Your task to perform on an android device: check out phone information Image 0: 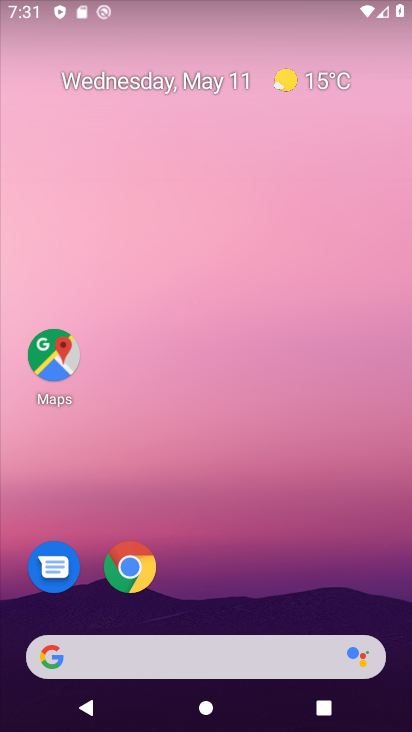
Step 0: press home button
Your task to perform on an android device: check out phone information Image 1: 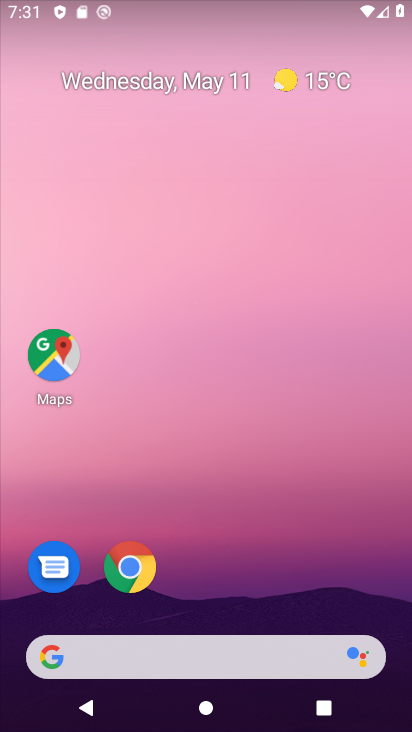
Step 1: drag from (235, 593) to (399, 124)
Your task to perform on an android device: check out phone information Image 2: 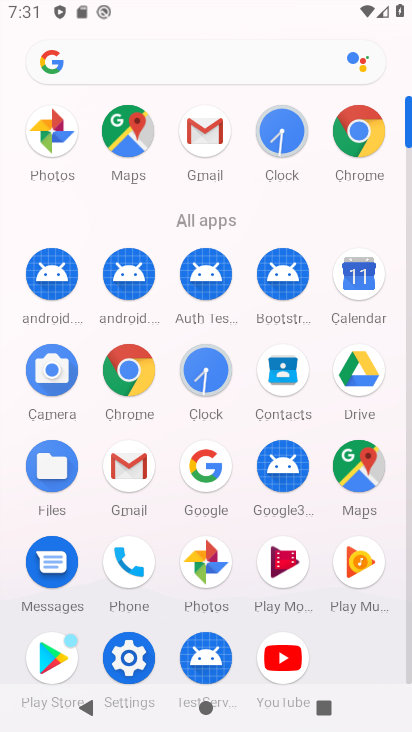
Step 2: click (135, 658)
Your task to perform on an android device: check out phone information Image 3: 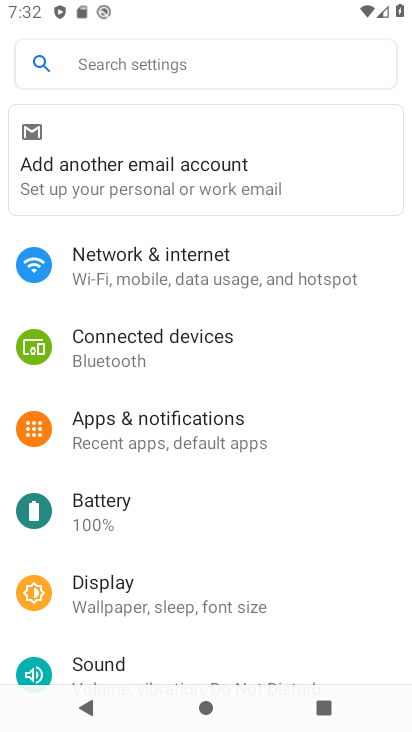
Step 3: drag from (155, 635) to (372, 118)
Your task to perform on an android device: check out phone information Image 4: 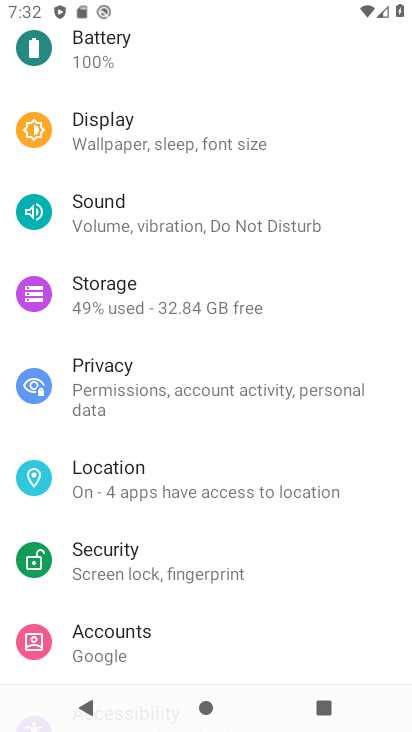
Step 4: drag from (220, 613) to (400, 63)
Your task to perform on an android device: check out phone information Image 5: 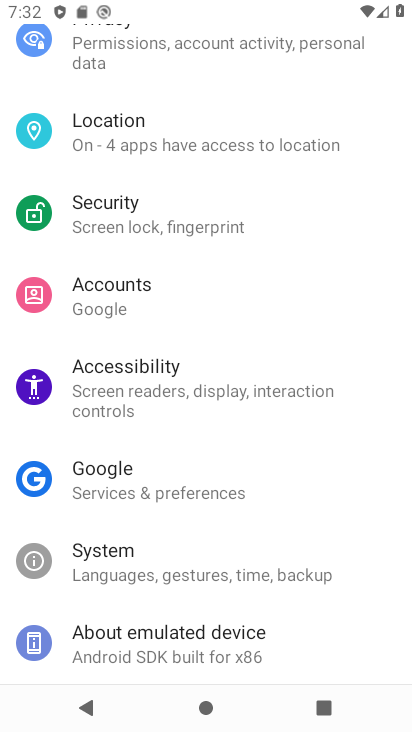
Step 5: click (206, 642)
Your task to perform on an android device: check out phone information Image 6: 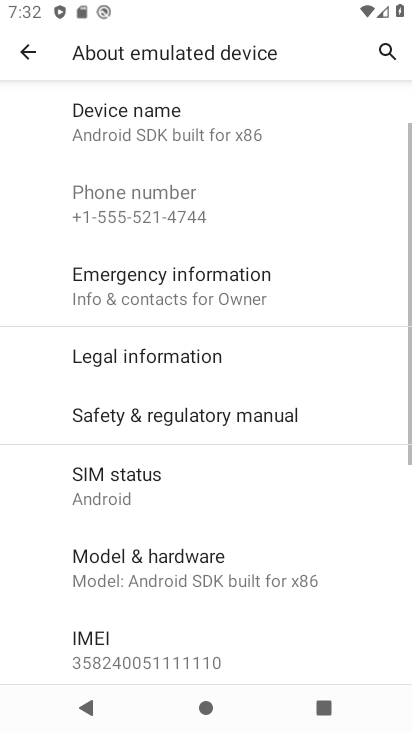
Step 6: task complete